Your task to perform on an android device: Add "corsair k70" to the cart on amazon.com, then select checkout. Image 0: 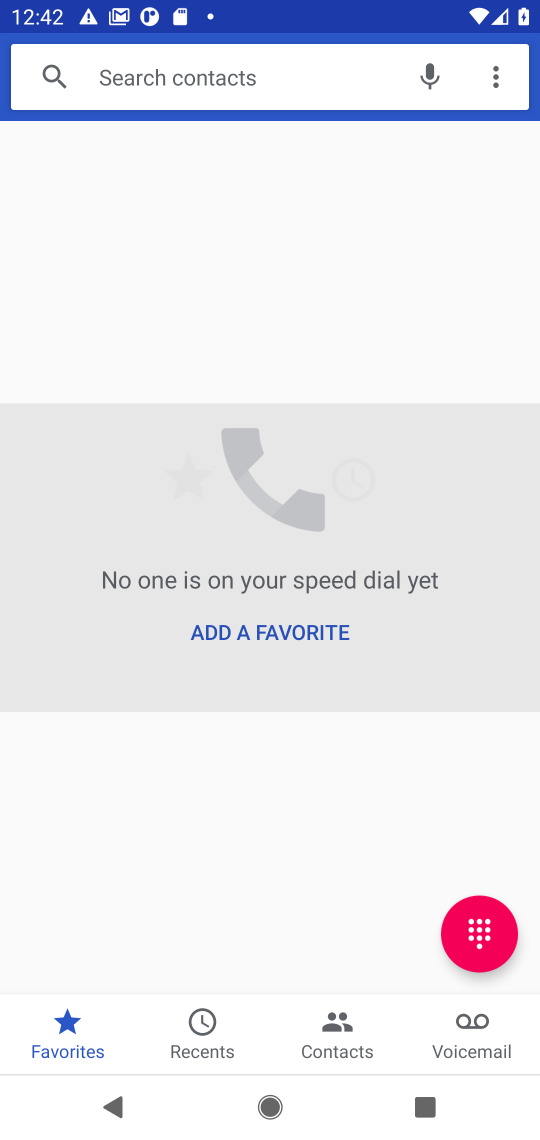
Step 0: press home button
Your task to perform on an android device: Add "corsair k70" to the cart on amazon.com, then select checkout. Image 1: 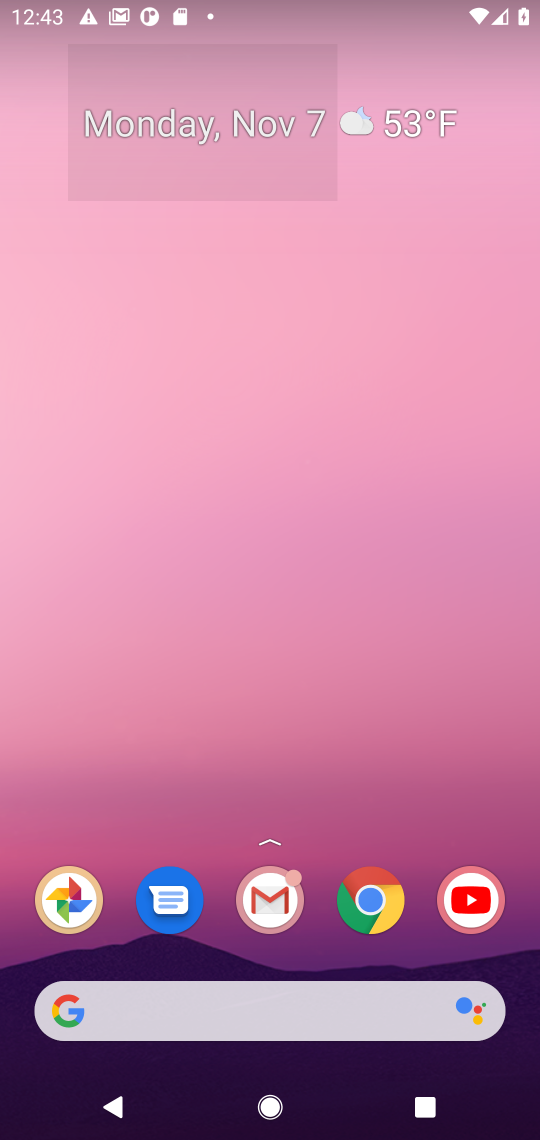
Step 1: click (280, 1002)
Your task to perform on an android device: Add "corsair k70" to the cart on amazon.com, then select checkout. Image 2: 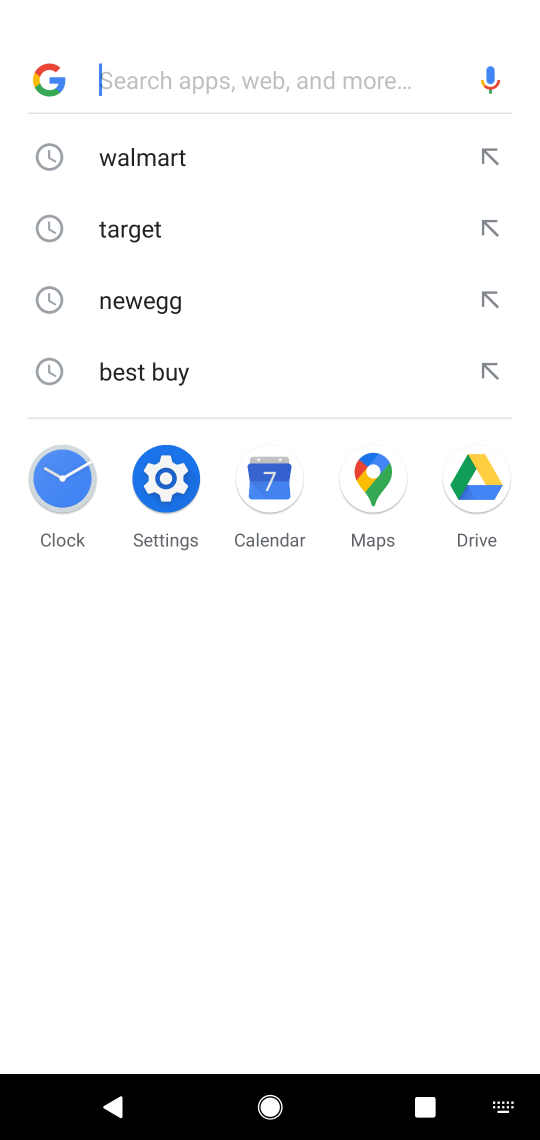
Step 2: type "amazon"
Your task to perform on an android device: Add "corsair k70" to the cart on amazon.com, then select checkout. Image 3: 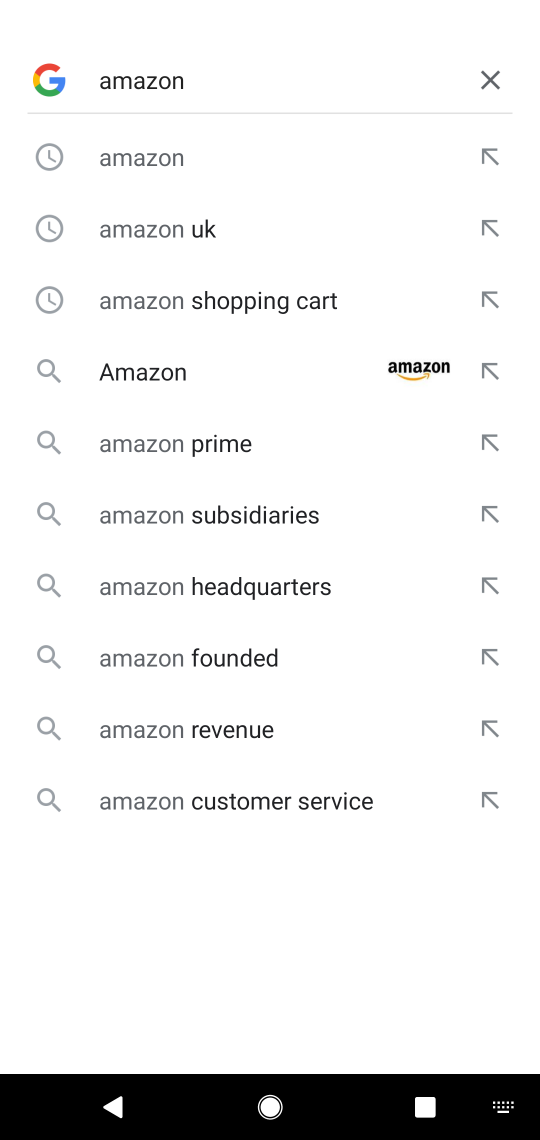
Step 3: click (179, 154)
Your task to perform on an android device: Add "corsair k70" to the cart on amazon.com, then select checkout. Image 4: 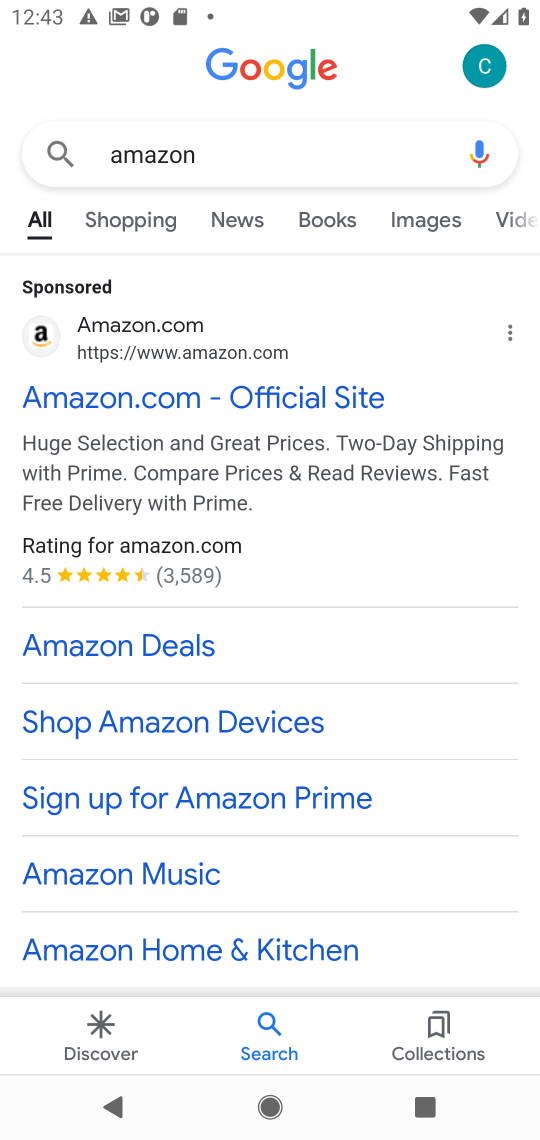
Step 4: click (252, 414)
Your task to perform on an android device: Add "corsair k70" to the cart on amazon.com, then select checkout. Image 5: 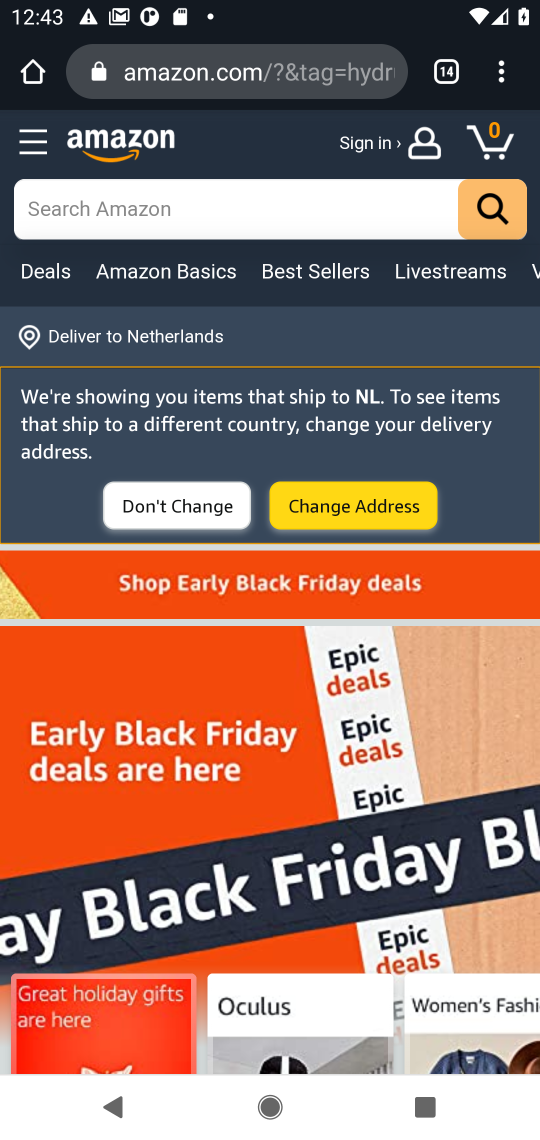
Step 5: click (210, 220)
Your task to perform on an android device: Add "corsair k70" to the cart on amazon.com, then select checkout. Image 6: 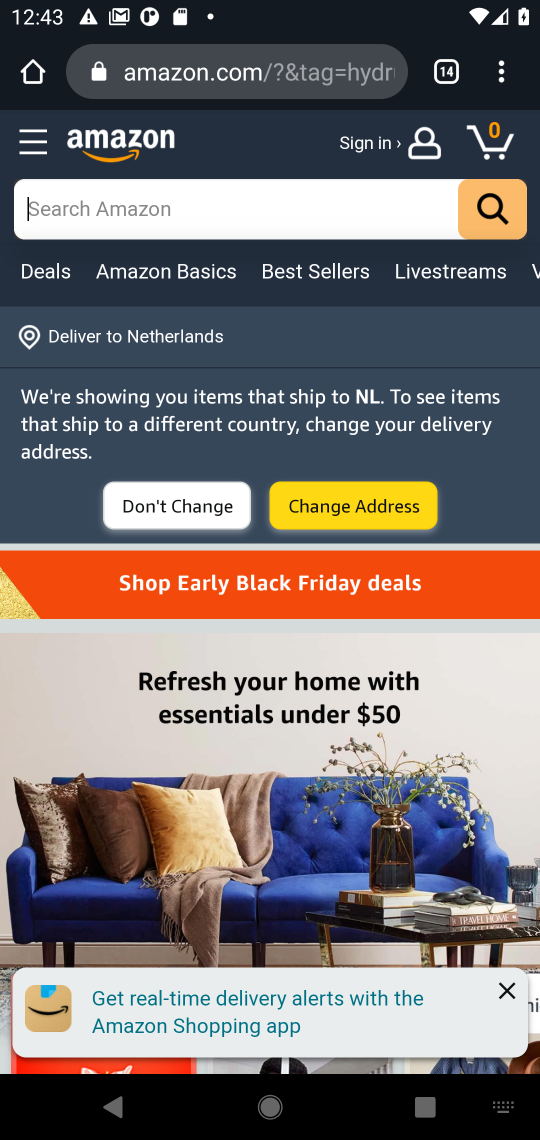
Step 6: type "corsair k70"
Your task to perform on an android device: Add "corsair k70" to the cart on amazon.com, then select checkout. Image 7: 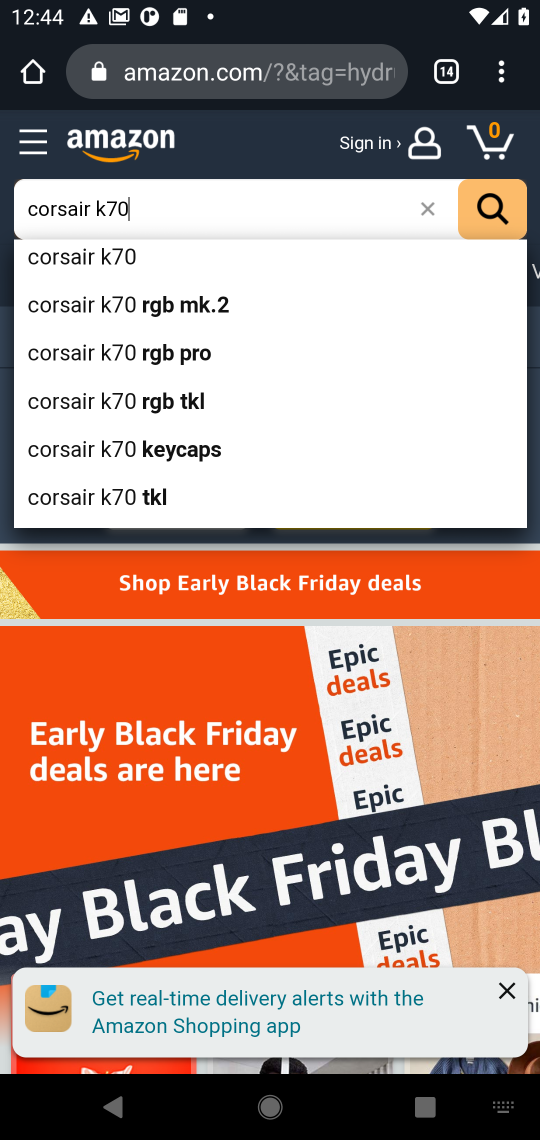
Step 7: click (98, 273)
Your task to perform on an android device: Add "corsair k70" to the cart on amazon.com, then select checkout. Image 8: 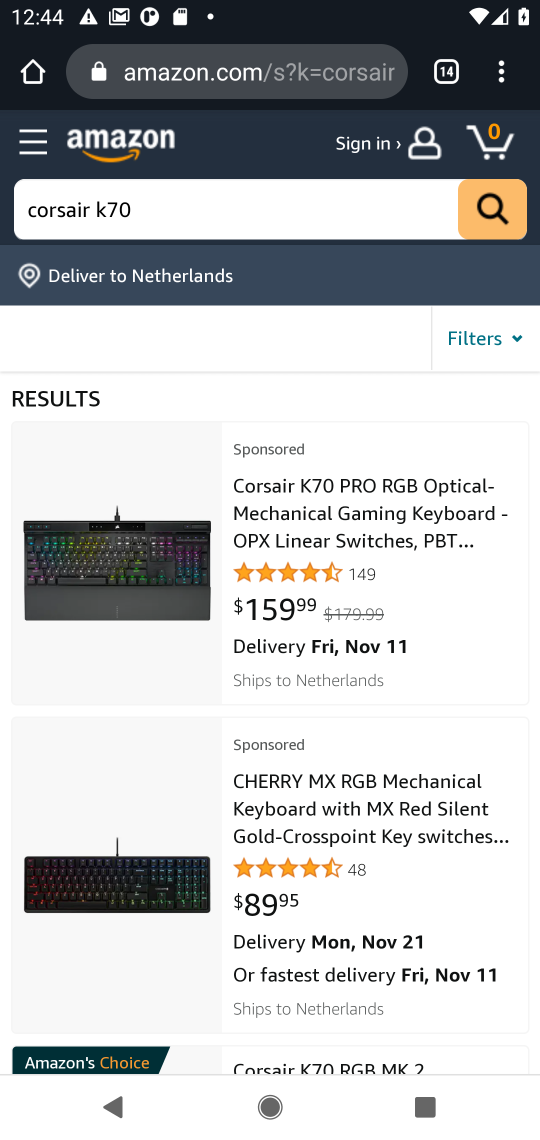
Step 8: click (277, 571)
Your task to perform on an android device: Add "corsair k70" to the cart on amazon.com, then select checkout. Image 9: 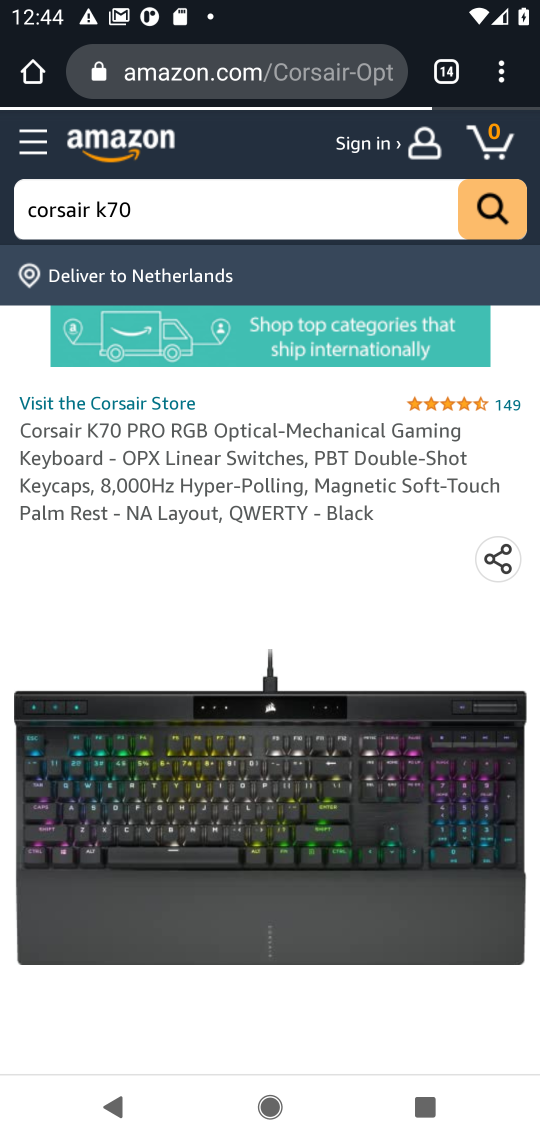
Step 9: task complete